Your task to perform on an android device: Go to Android settings Image 0: 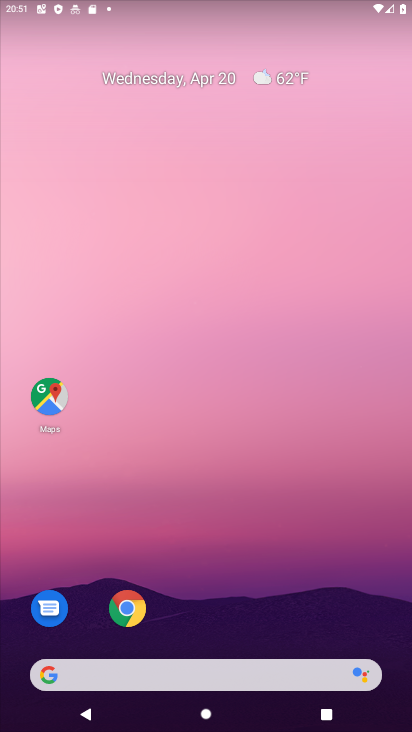
Step 0: drag from (342, 555) to (324, 7)
Your task to perform on an android device: Go to Android settings Image 1: 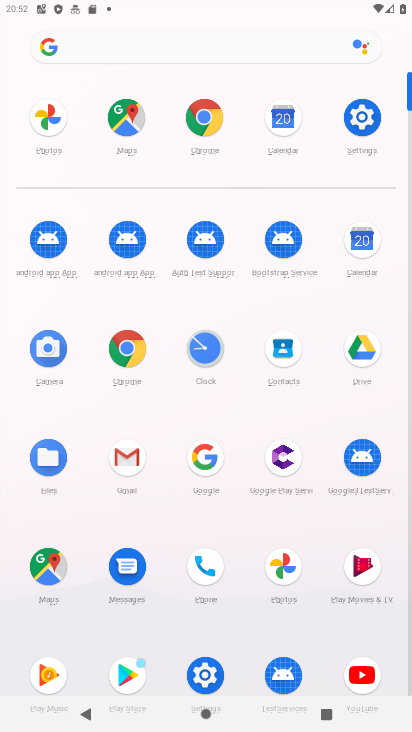
Step 1: click (217, 665)
Your task to perform on an android device: Go to Android settings Image 2: 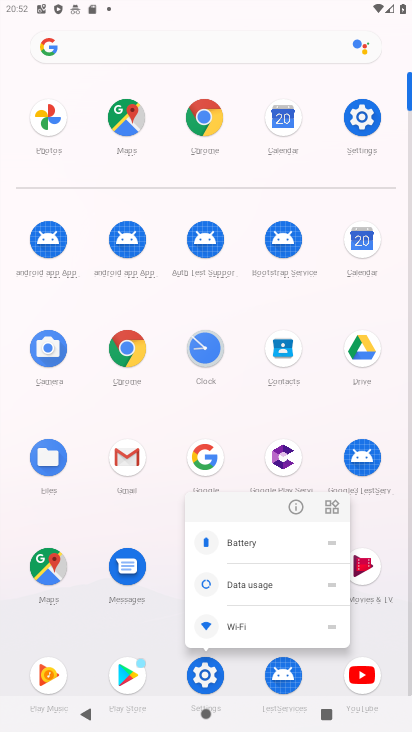
Step 2: click (208, 672)
Your task to perform on an android device: Go to Android settings Image 3: 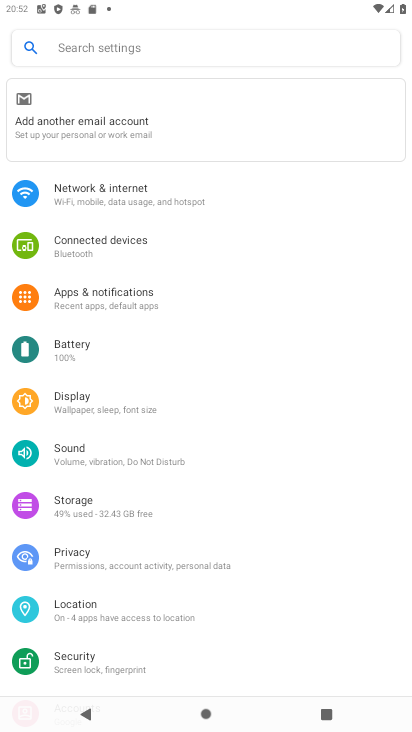
Step 3: drag from (198, 600) to (177, 231)
Your task to perform on an android device: Go to Android settings Image 4: 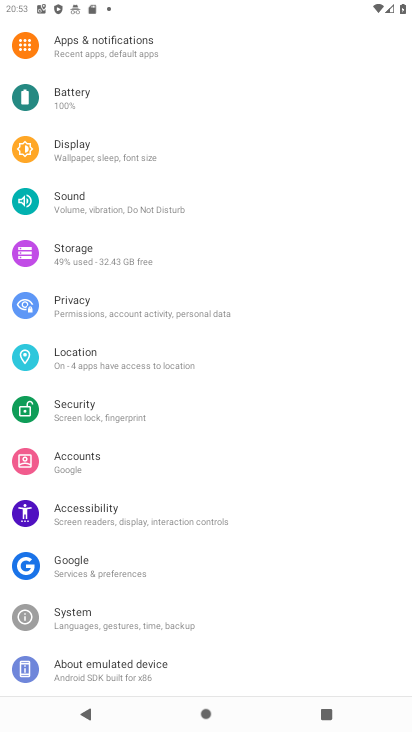
Step 4: click (129, 674)
Your task to perform on an android device: Go to Android settings Image 5: 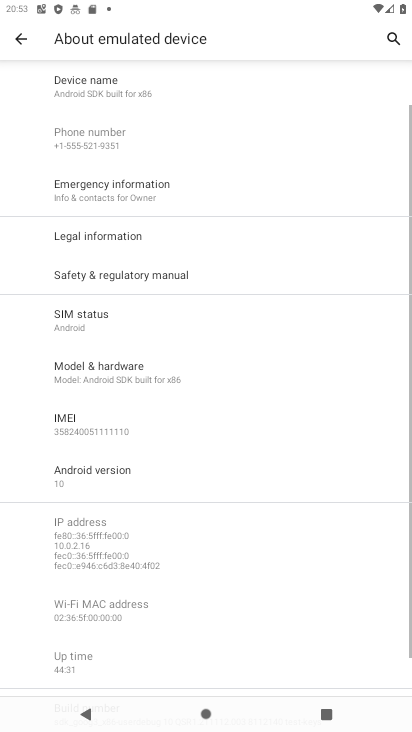
Step 5: click (126, 481)
Your task to perform on an android device: Go to Android settings Image 6: 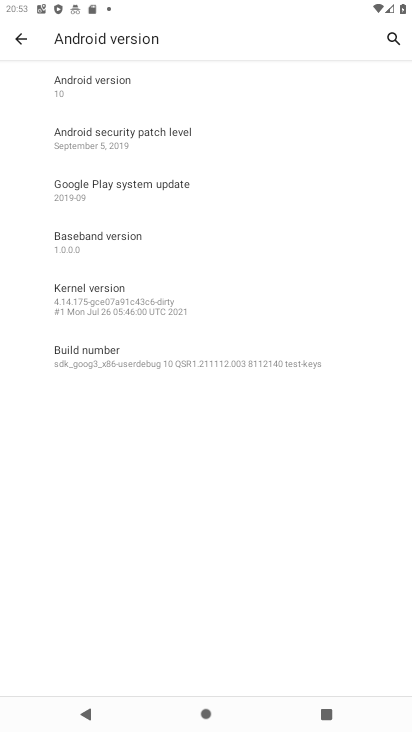
Step 6: task complete